Your task to perform on an android device: Open my contact list Image 0: 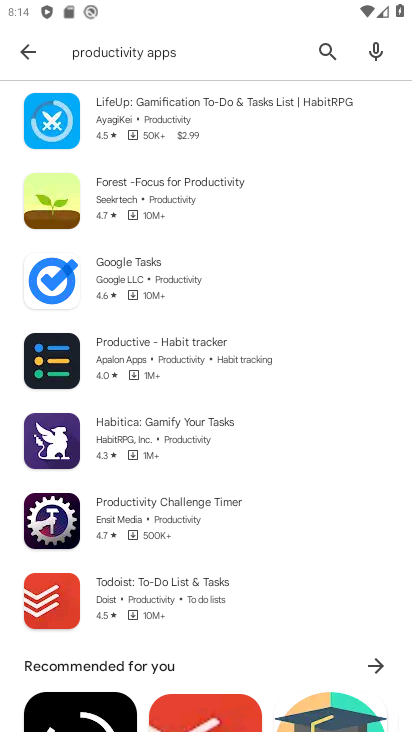
Step 0: press home button
Your task to perform on an android device: Open my contact list Image 1: 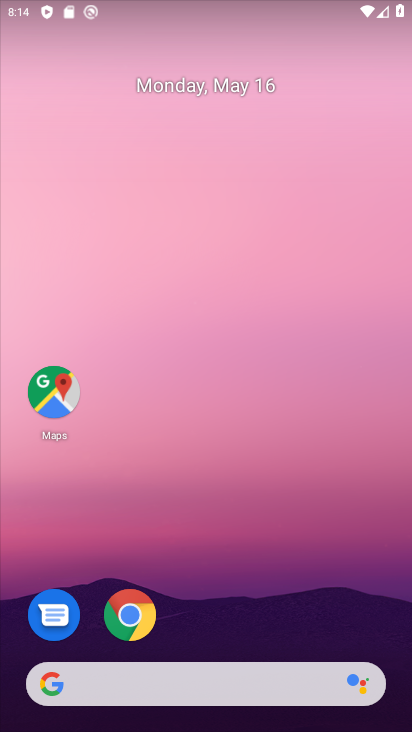
Step 1: drag from (188, 702) to (152, 163)
Your task to perform on an android device: Open my contact list Image 2: 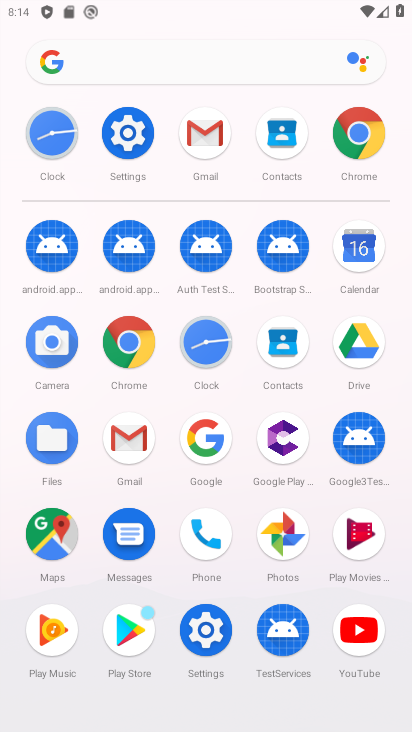
Step 2: click (295, 359)
Your task to perform on an android device: Open my contact list Image 3: 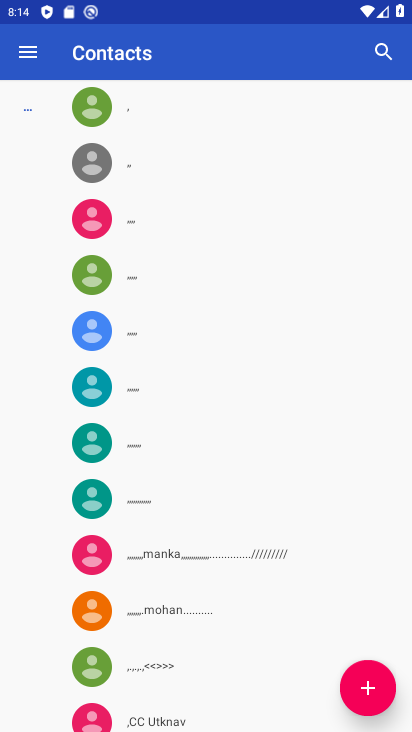
Step 3: task complete